Your task to perform on an android device: Add "amazon basics triple a" to the cart on newegg Image 0: 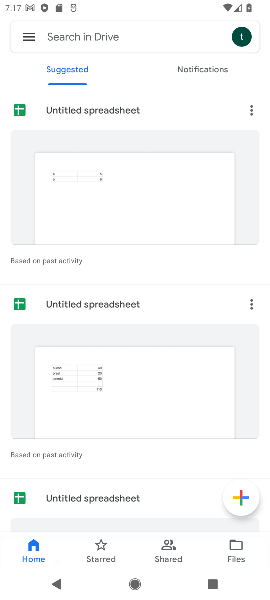
Step 0: press home button
Your task to perform on an android device: Add "amazon basics triple a" to the cart on newegg Image 1: 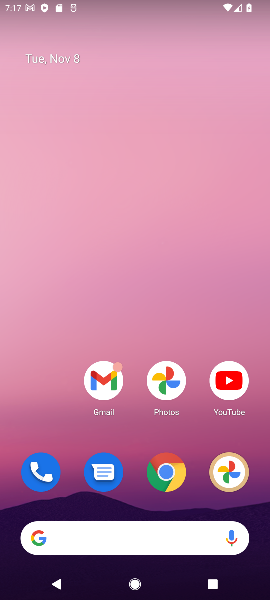
Step 1: click (170, 473)
Your task to perform on an android device: Add "amazon basics triple a" to the cart on newegg Image 2: 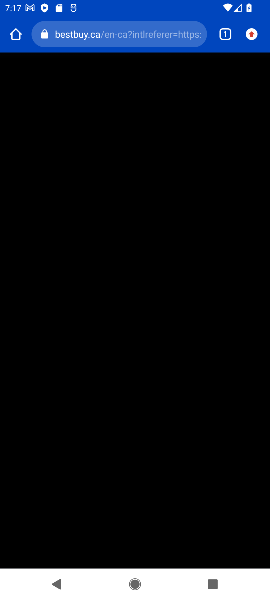
Step 2: click (108, 34)
Your task to perform on an android device: Add "amazon basics triple a" to the cart on newegg Image 3: 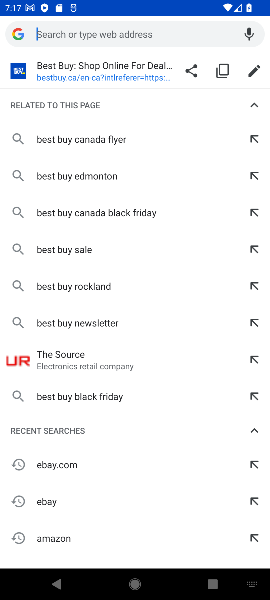
Step 3: drag from (113, 465) to (140, 199)
Your task to perform on an android device: Add "amazon basics triple a" to the cart on newegg Image 4: 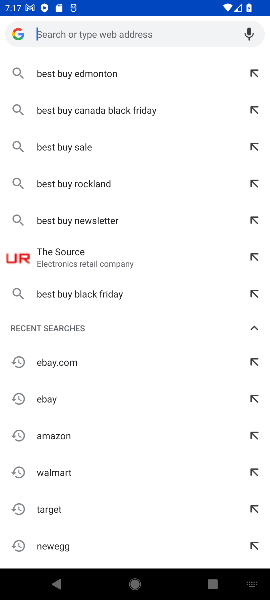
Step 4: click (60, 541)
Your task to perform on an android device: Add "amazon basics triple a" to the cart on newegg Image 5: 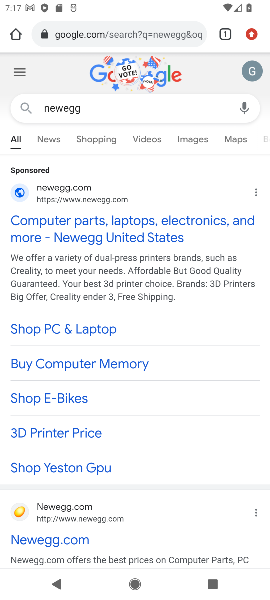
Step 5: click (58, 538)
Your task to perform on an android device: Add "amazon basics triple a" to the cart on newegg Image 6: 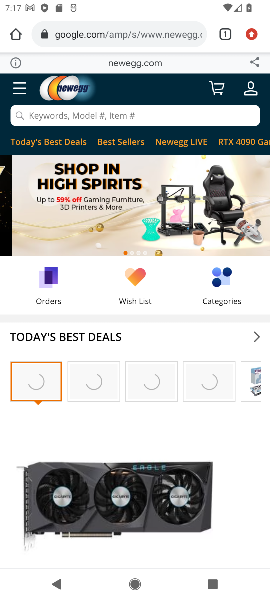
Step 6: click (97, 115)
Your task to perform on an android device: Add "amazon basics triple a" to the cart on newegg Image 7: 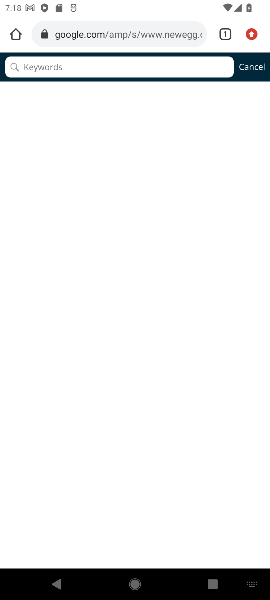
Step 7: type "amazon basics triple a"
Your task to perform on an android device: Add "amazon basics triple a" to the cart on newegg Image 8: 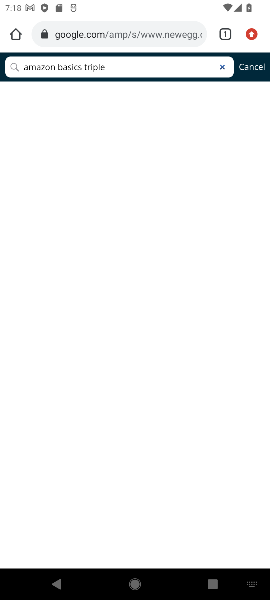
Step 8: press enter
Your task to perform on an android device: Add "amazon basics triple a" to the cart on newegg Image 9: 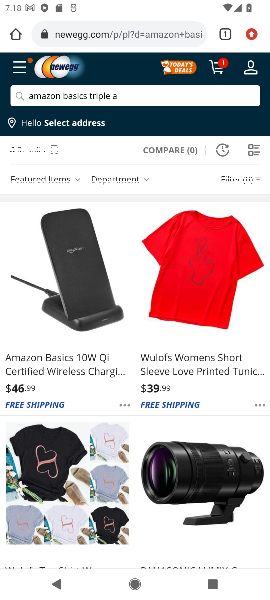
Step 9: task complete